Your task to perform on an android device: turn on airplane mode Image 0: 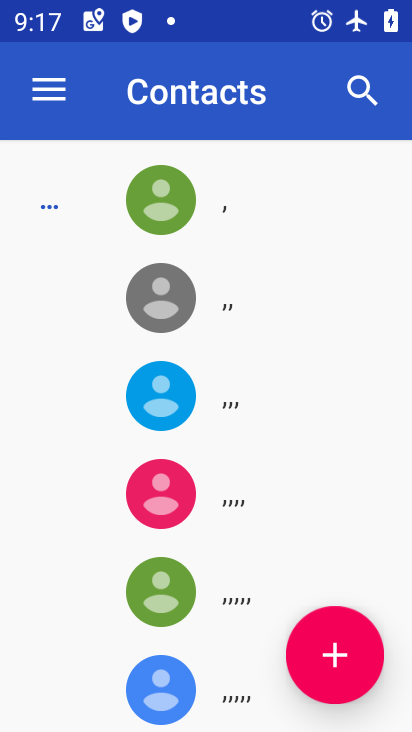
Step 0: press home button
Your task to perform on an android device: turn on airplane mode Image 1: 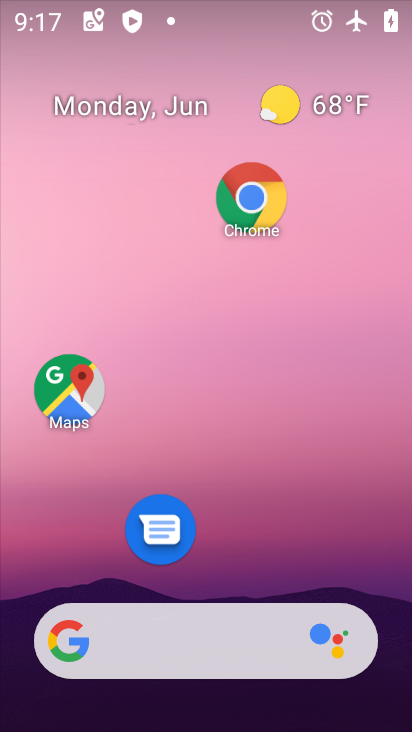
Step 1: drag from (205, 570) to (188, 107)
Your task to perform on an android device: turn on airplane mode Image 2: 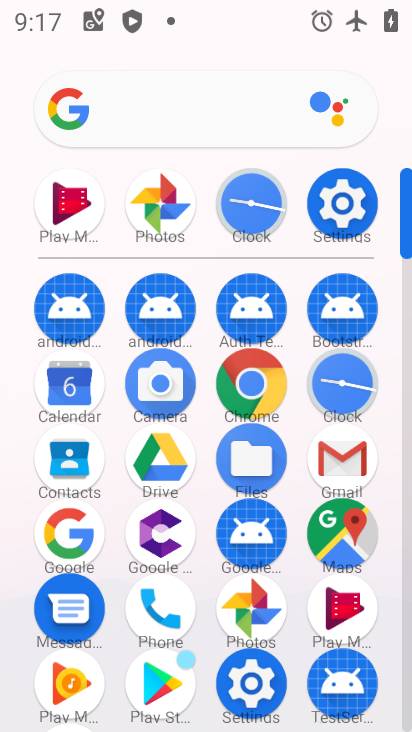
Step 2: click (338, 190)
Your task to perform on an android device: turn on airplane mode Image 3: 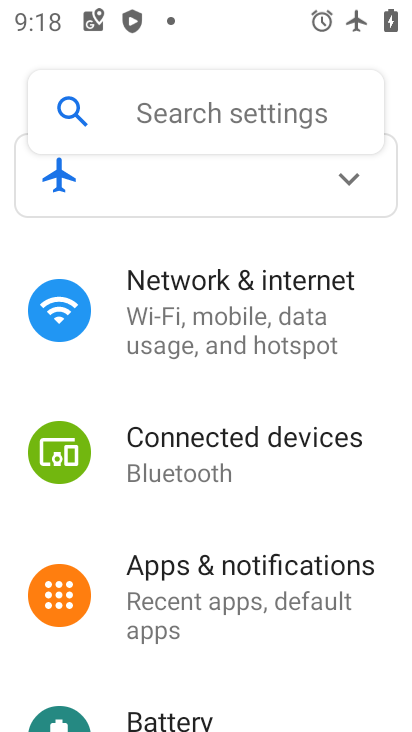
Step 3: click (212, 344)
Your task to perform on an android device: turn on airplane mode Image 4: 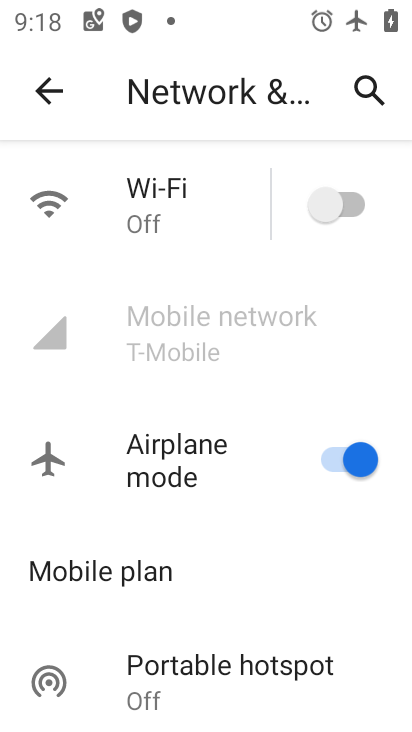
Step 4: task complete